Your task to perform on an android device: Open Youtube and go to the subscriptions tab Image 0: 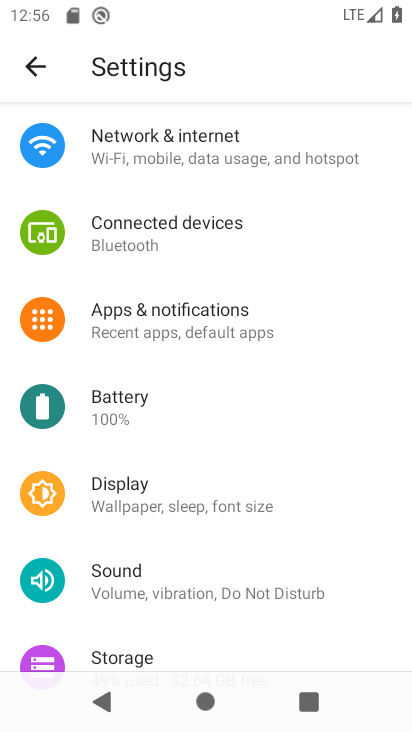
Step 0: press home button
Your task to perform on an android device: Open Youtube and go to the subscriptions tab Image 1: 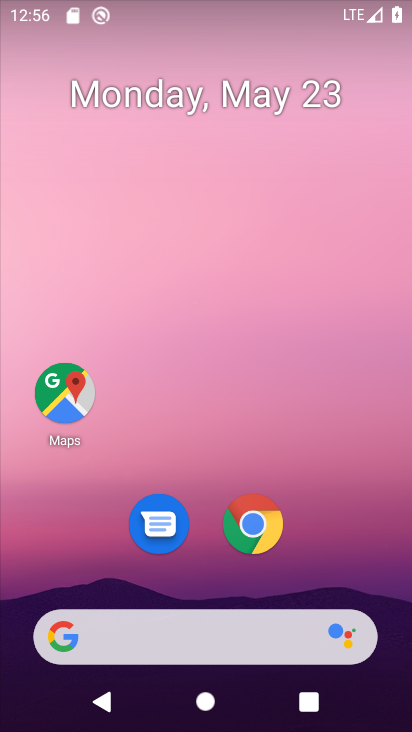
Step 1: drag from (188, 553) to (197, 24)
Your task to perform on an android device: Open Youtube and go to the subscriptions tab Image 2: 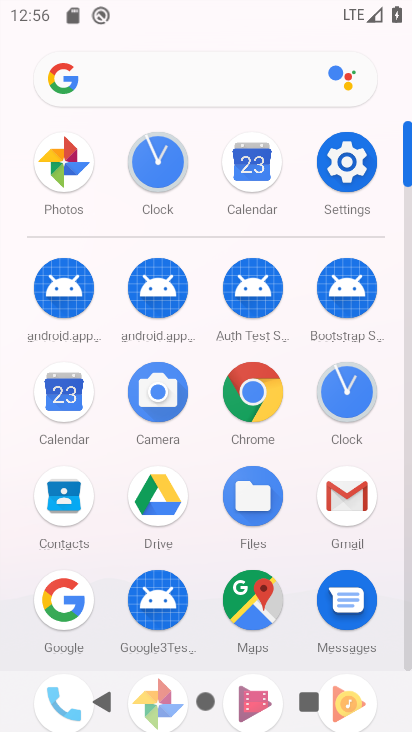
Step 2: drag from (202, 529) to (252, 125)
Your task to perform on an android device: Open Youtube and go to the subscriptions tab Image 3: 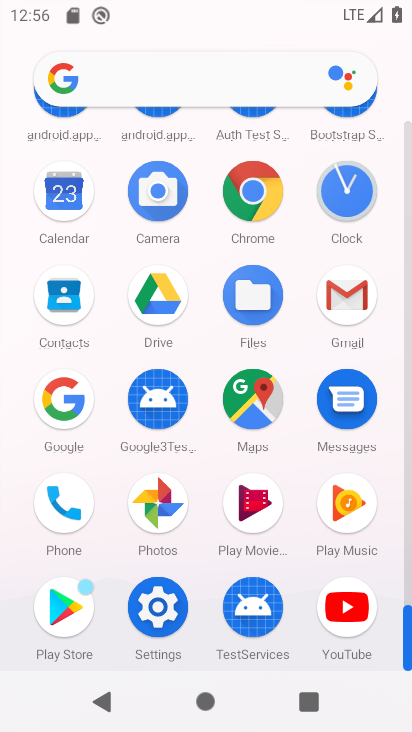
Step 3: click (344, 601)
Your task to perform on an android device: Open Youtube and go to the subscriptions tab Image 4: 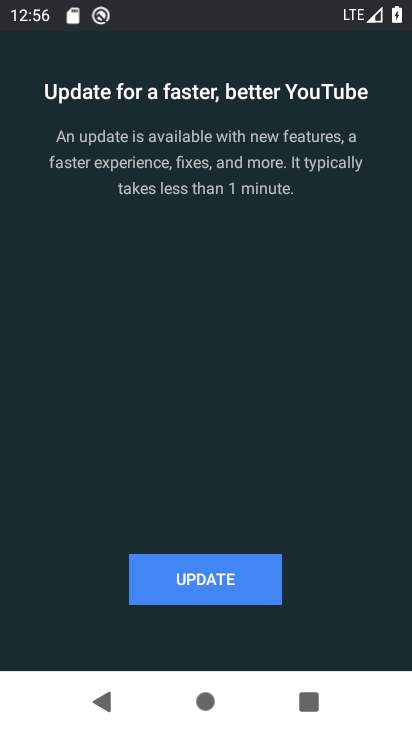
Step 4: click (223, 585)
Your task to perform on an android device: Open Youtube and go to the subscriptions tab Image 5: 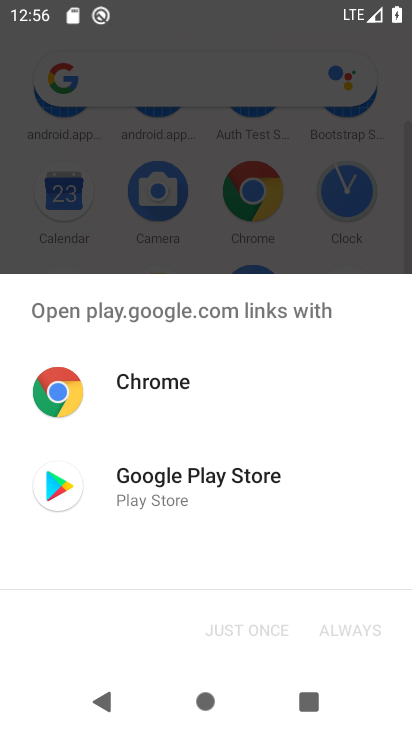
Step 5: click (110, 484)
Your task to perform on an android device: Open Youtube and go to the subscriptions tab Image 6: 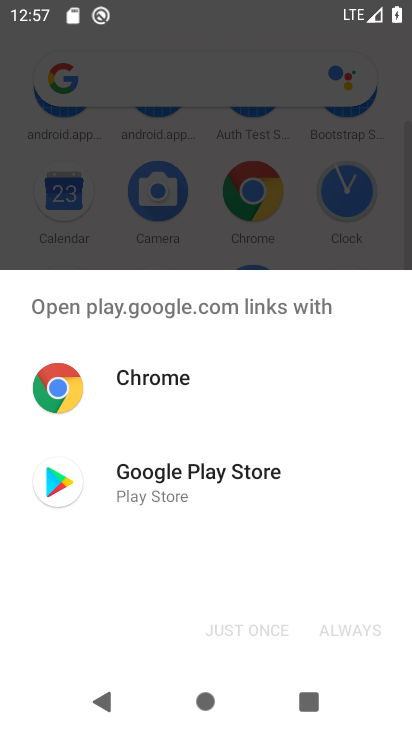
Step 6: click (128, 483)
Your task to perform on an android device: Open Youtube and go to the subscriptions tab Image 7: 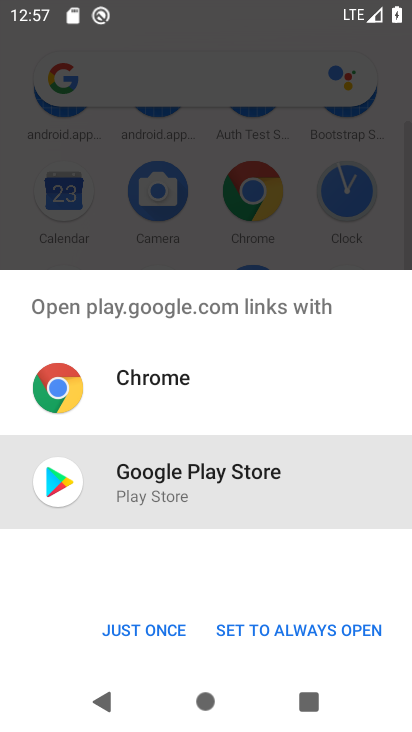
Step 7: click (139, 625)
Your task to perform on an android device: Open Youtube and go to the subscriptions tab Image 8: 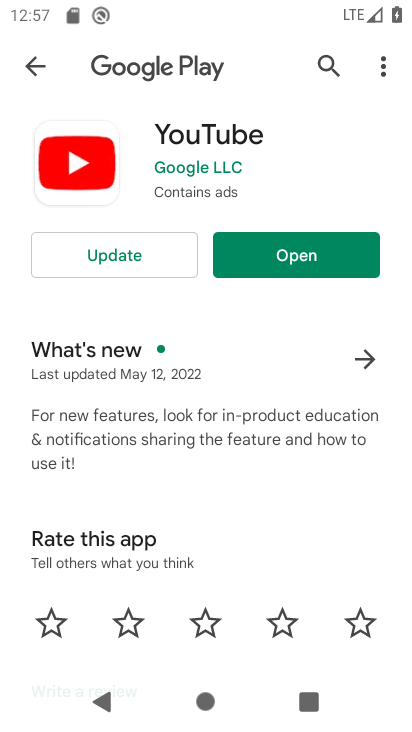
Step 8: click (131, 252)
Your task to perform on an android device: Open Youtube and go to the subscriptions tab Image 9: 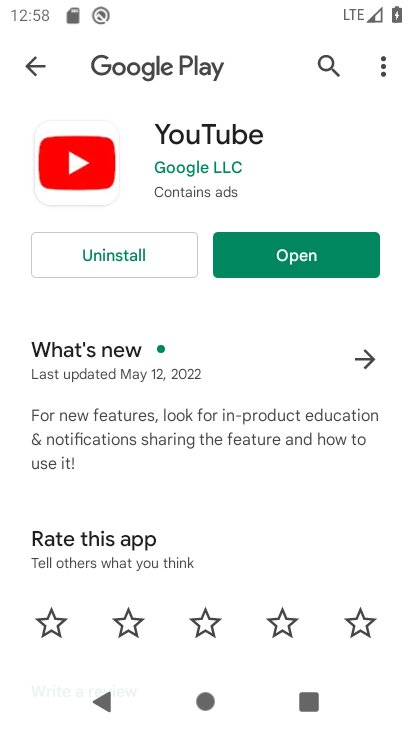
Step 9: click (294, 249)
Your task to perform on an android device: Open Youtube and go to the subscriptions tab Image 10: 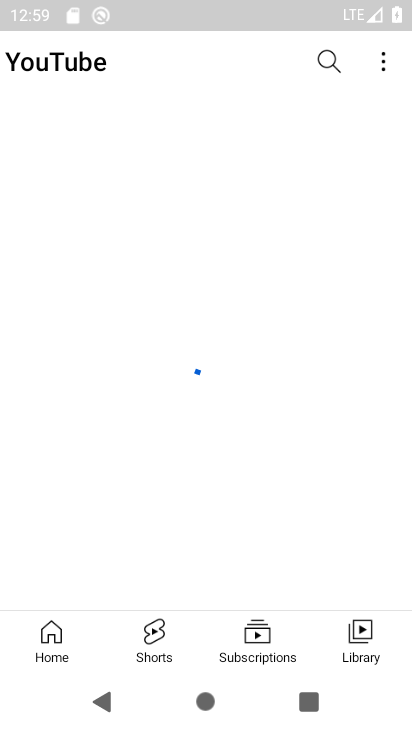
Step 10: click (243, 636)
Your task to perform on an android device: Open Youtube and go to the subscriptions tab Image 11: 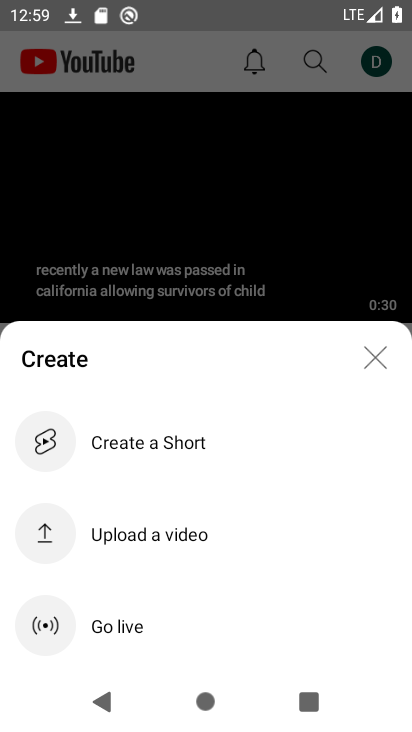
Step 11: click (373, 353)
Your task to perform on an android device: Open Youtube and go to the subscriptions tab Image 12: 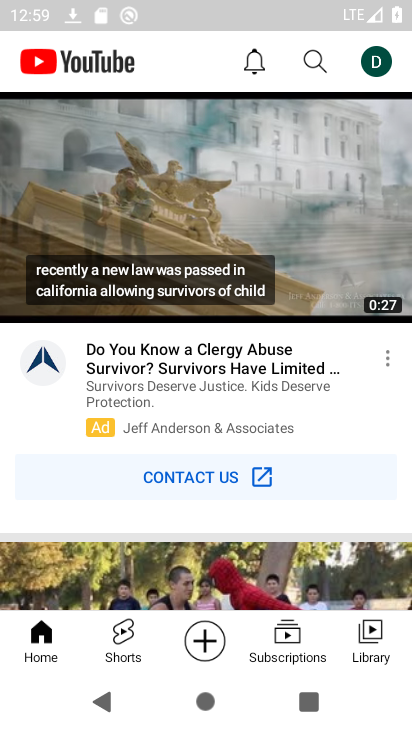
Step 12: click (276, 630)
Your task to perform on an android device: Open Youtube and go to the subscriptions tab Image 13: 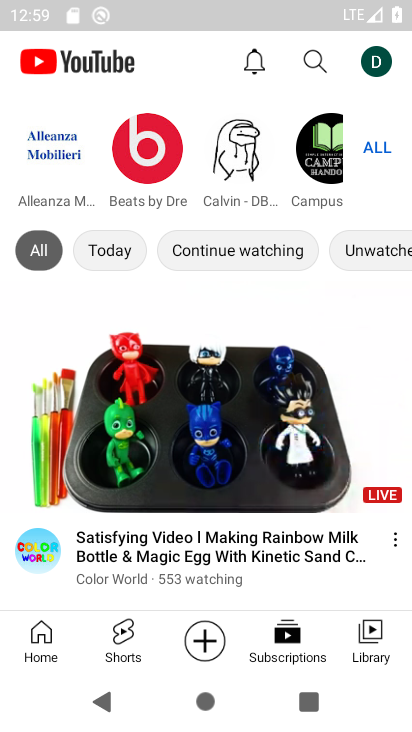
Step 13: task complete